Your task to perform on an android device: Do I have any events tomorrow? Image 0: 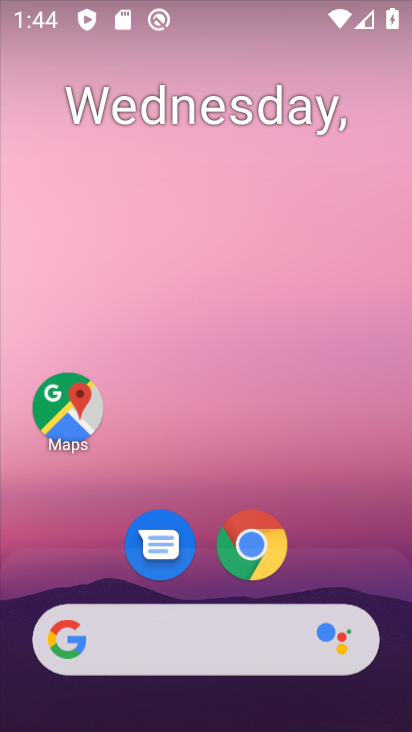
Step 0: drag from (342, 530) to (333, 83)
Your task to perform on an android device: Do I have any events tomorrow? Image 1: 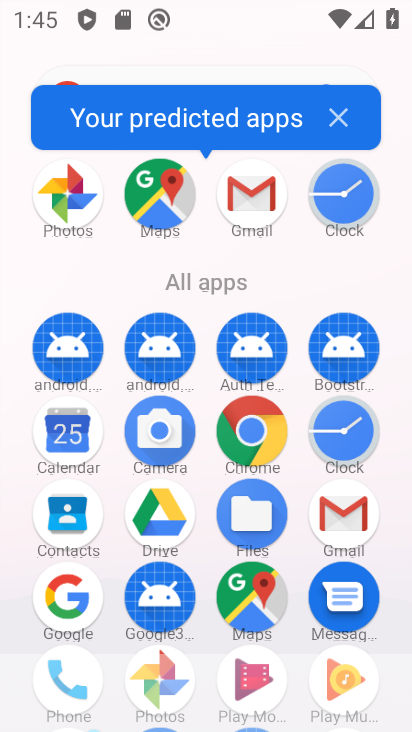
Step 1: click (76, 441)
Your task to perform on an android device: Do I have any events tomorrow? Image 2: 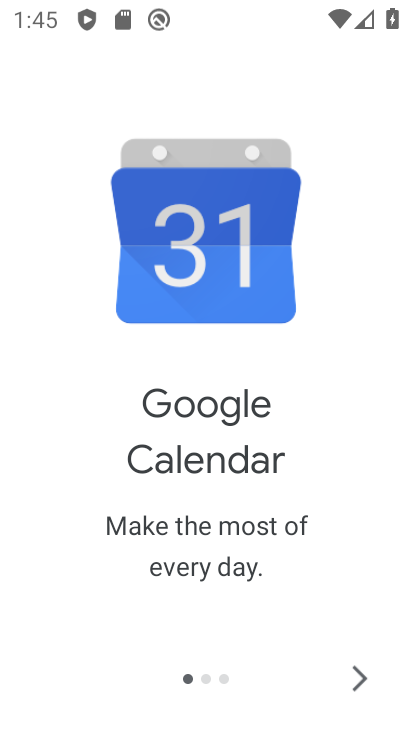
Step 2: click (345, 667)
Your task to perform on an android device: Do I have any events tomorrow? Image 3: 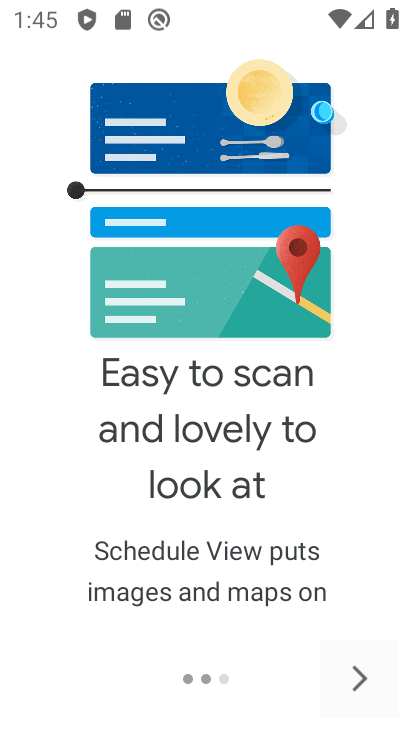
Step 3: click (350, 668)
Your task to perform on an android device: Do I have any events tomorrow? Image 4: 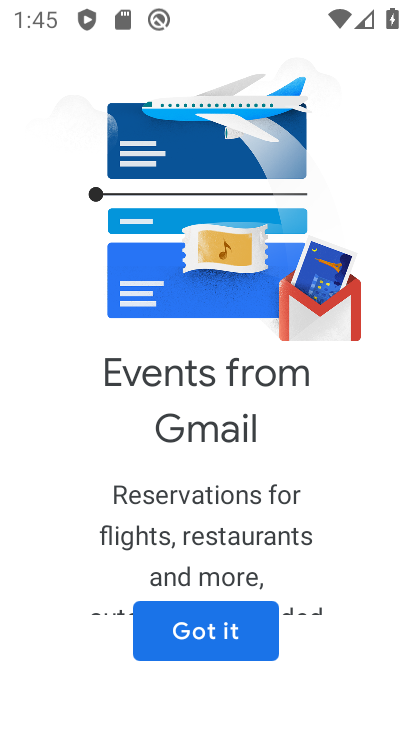
Step 4: click (208, 645)
Your task to perform on an android device: Do I have any events tomorrow? Image 5: 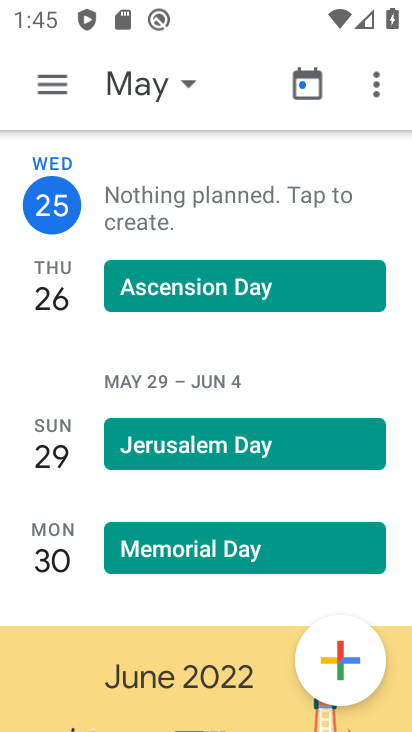
Step 5: task complete